Your task to perform on an android device: Search for Italian restaurants on Maps Image 0: 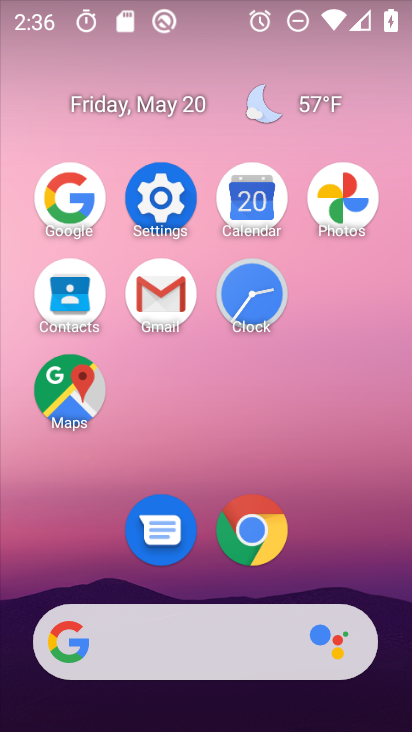
Step 0: click (81, 385)
Your task to perform on an android device: Search for Italian restaurants on Maps Image 1: 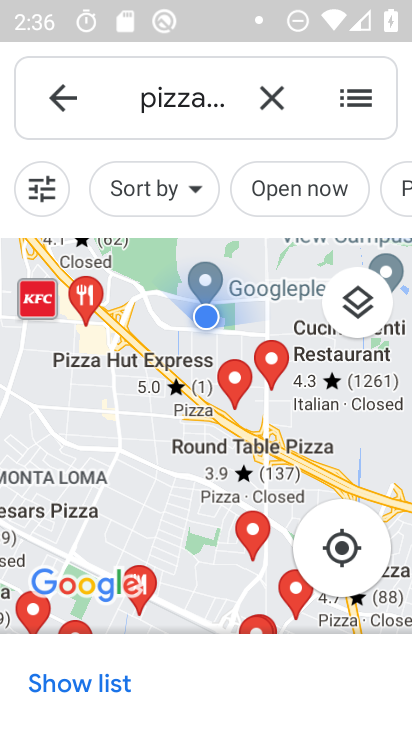
Step 1: click (288, 97)
Your task to perform on an android device: Search for Italian restaurants on Maps Image 2: 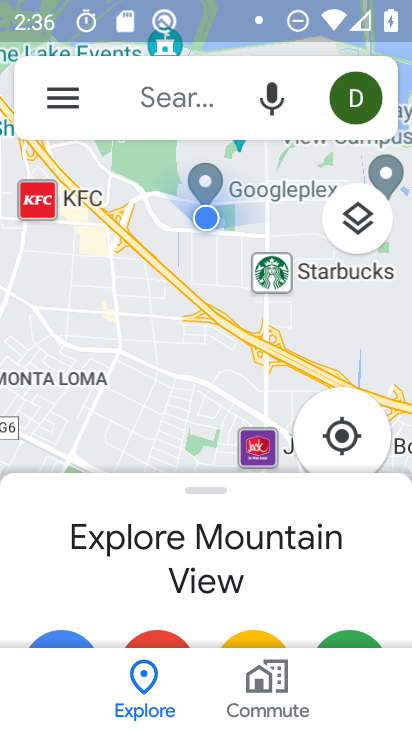
Step 2: click (189, 106)
Your task to perform on an android device: Search for Italian restaurants on Maps Image 3: 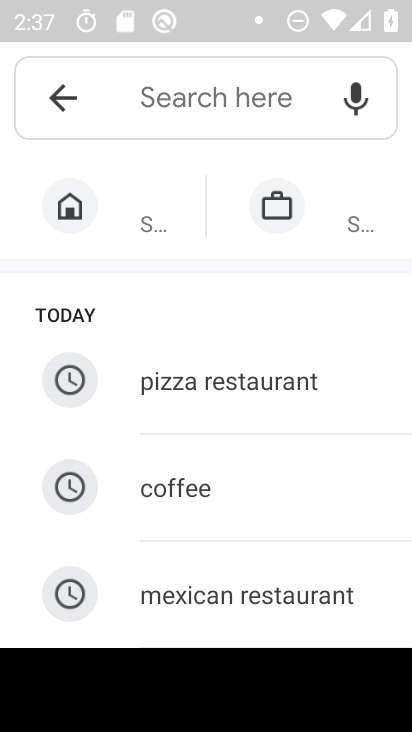
Step 3: drag from (274, 537) to (245, 165)
Your task to perform on an android device: Search for Italian restaurants on Maps Image 4: 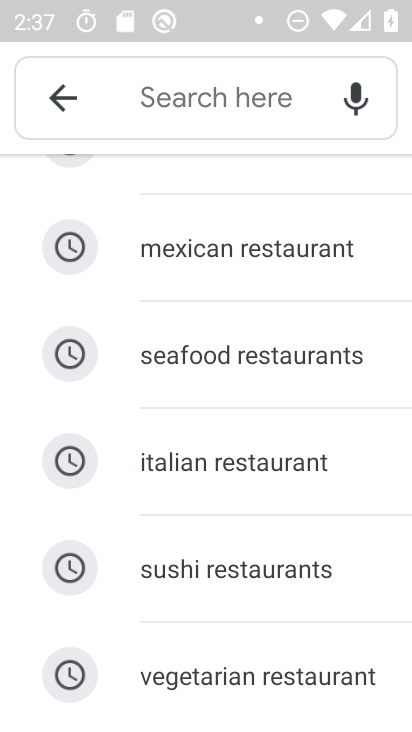
Step 4: click (267, 466)
Your task to perform on an android device: Search for Italian restaurants on Maps Image 5: 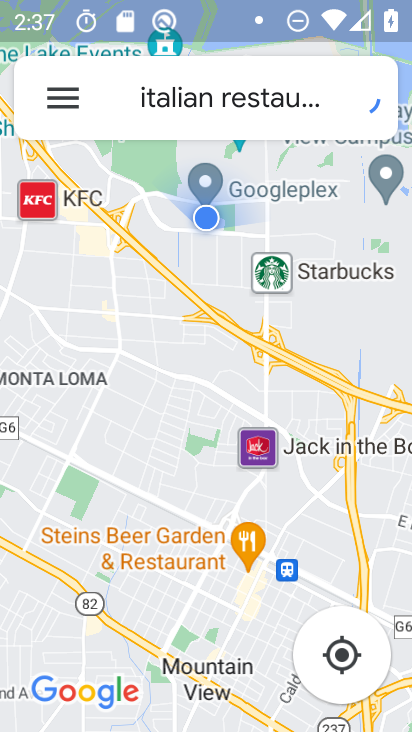
Step 5: task complete